Your task to perform on an android device: turn on priority inbox in the gmail app Image 0: 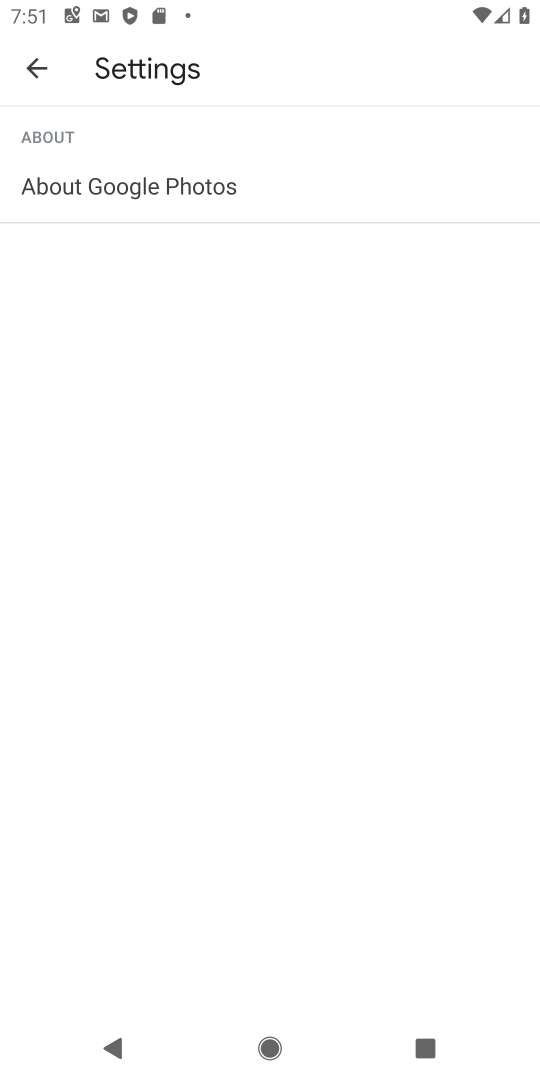
Step 0: press home button
Your task to perform on an android device: turn on priority inbox in the gmail app Image 1: 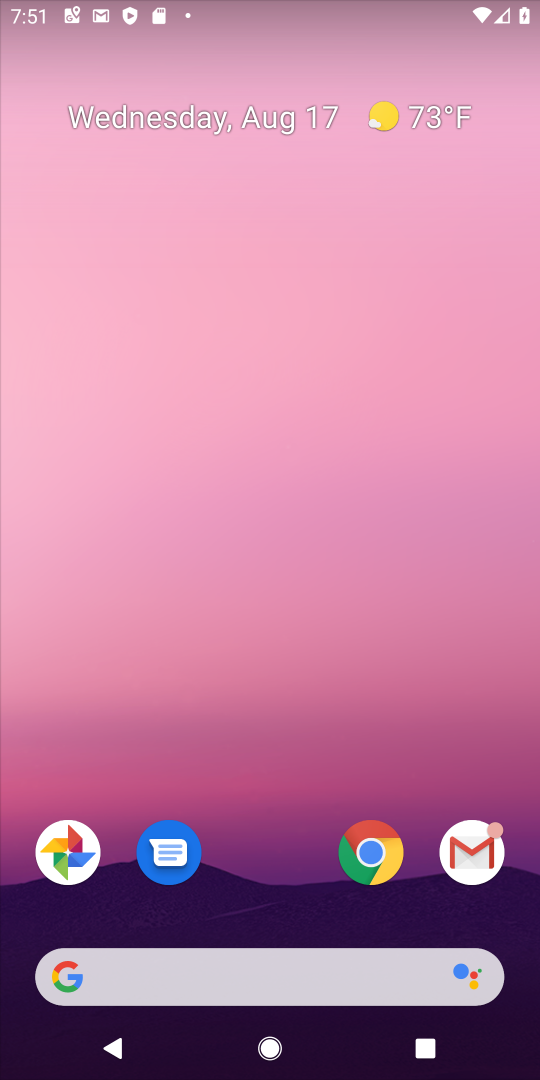
Step 1: click (470, 846)
Your task to perform on an android device: turn on priority inbox in the gmail app Image 2: 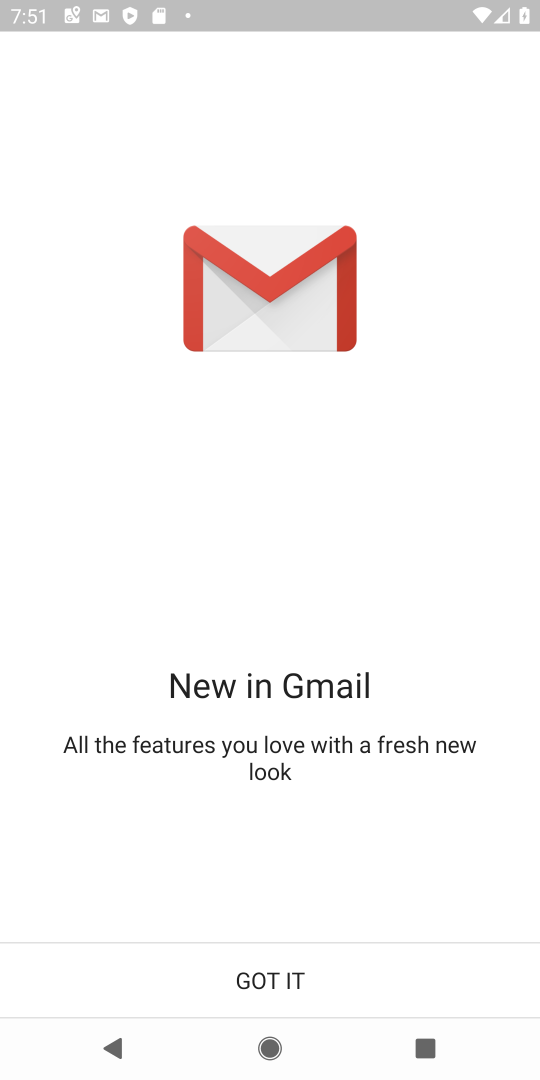
Step 2: click (285, 979)
Your task to perform on an android device: turn on priority inbox in the gmail app Image 3: 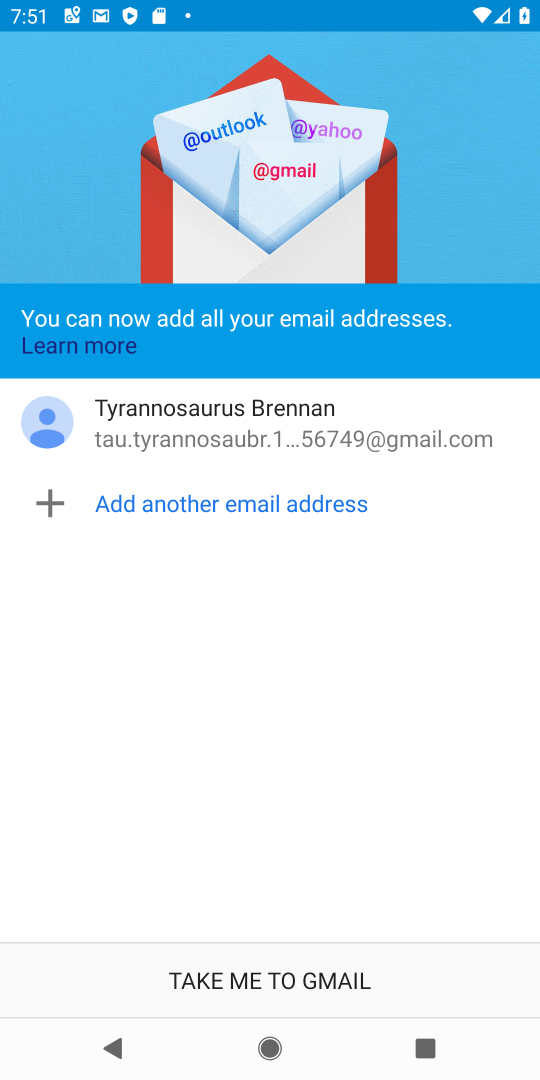
Step 3: click (285, 979)
Your task to perform on an android device: turn on priority inbox in the gmail app Image 4: 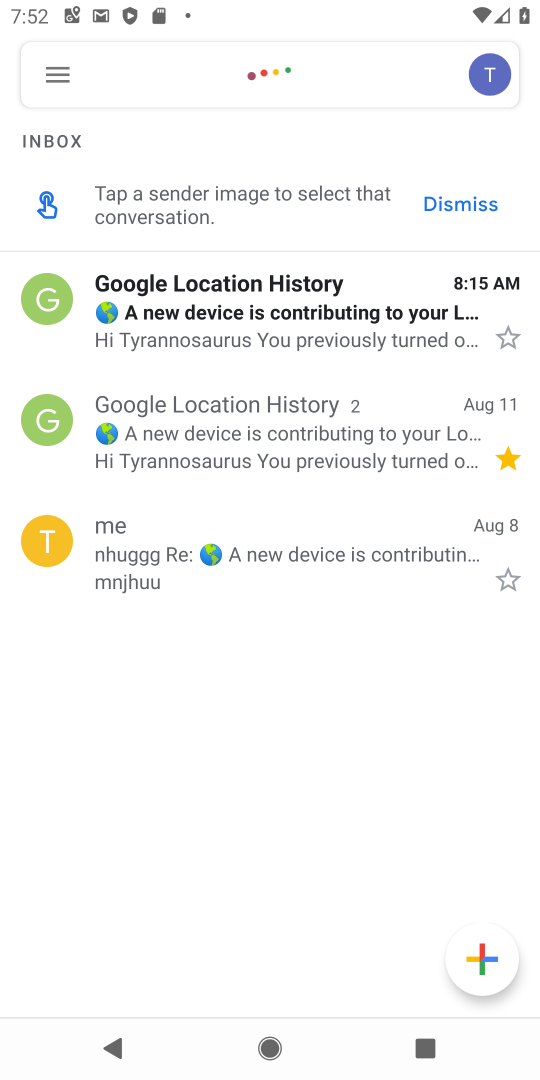
Step 4: click (59, 71)
Your task to perform on an android device: turn on priority inbox in the gmail app Image 5: 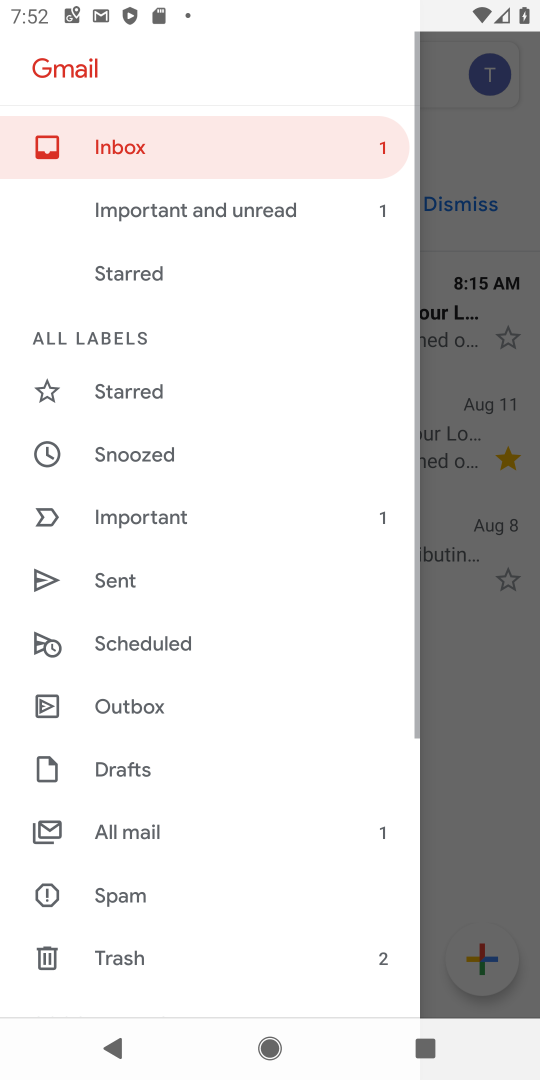
Step 5: drag from (203, 925) to (156, 500)
Your task to perform on an android device: turn on priority inbox in the gmail app Image 6: 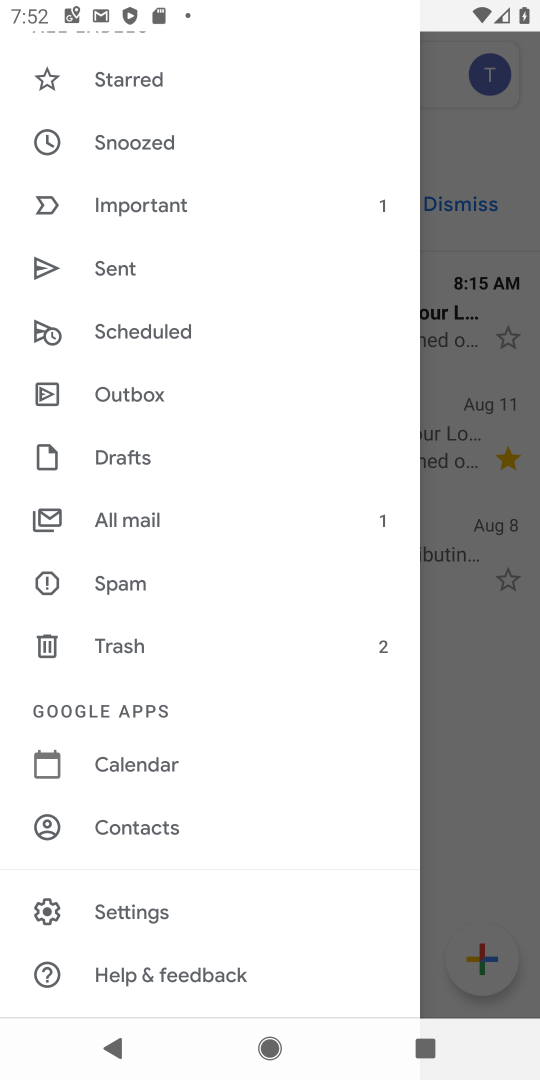
Step 6: click (137, 904)
Your task to perform on an android device: turn on priority inbox in the gmail app Image 7: 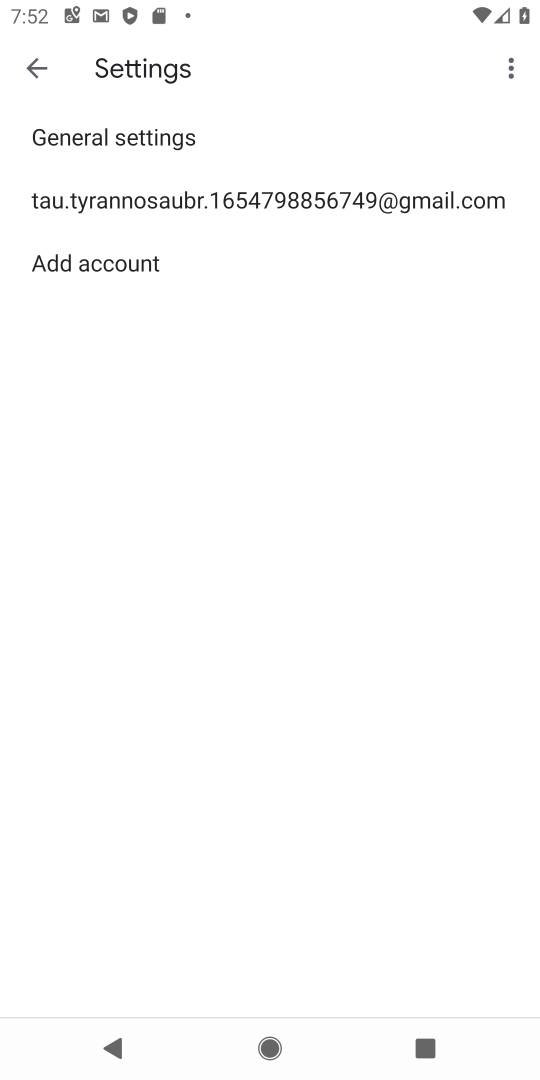
Step 7: click (167, 197)
Your task to perform on an android device: turn on priority inbox in the gmail app Image 8: 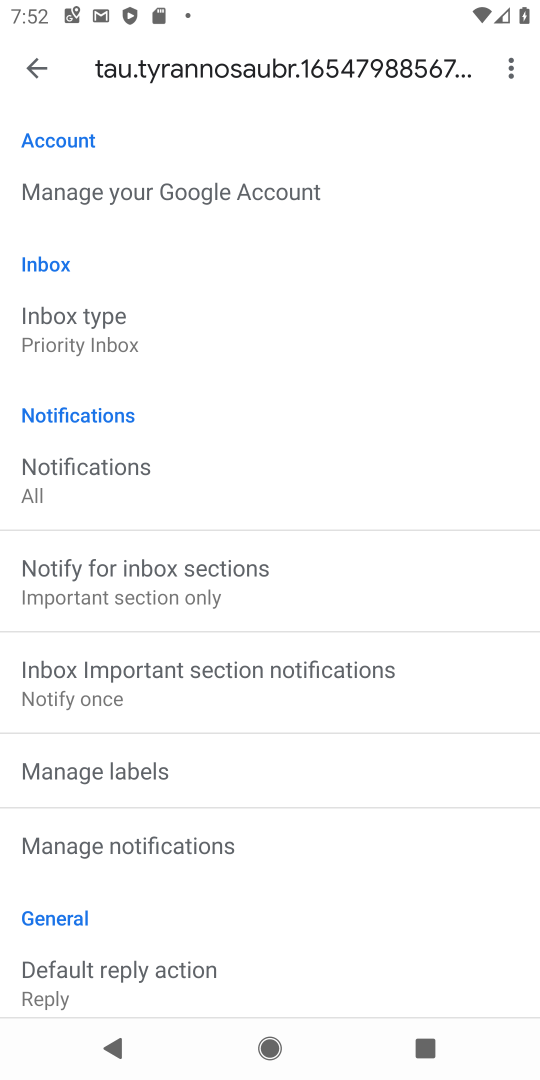
Step 8: click (87, 330)
Your task to perform on an android device: turn on priority inbox in the gmail app Image 9: 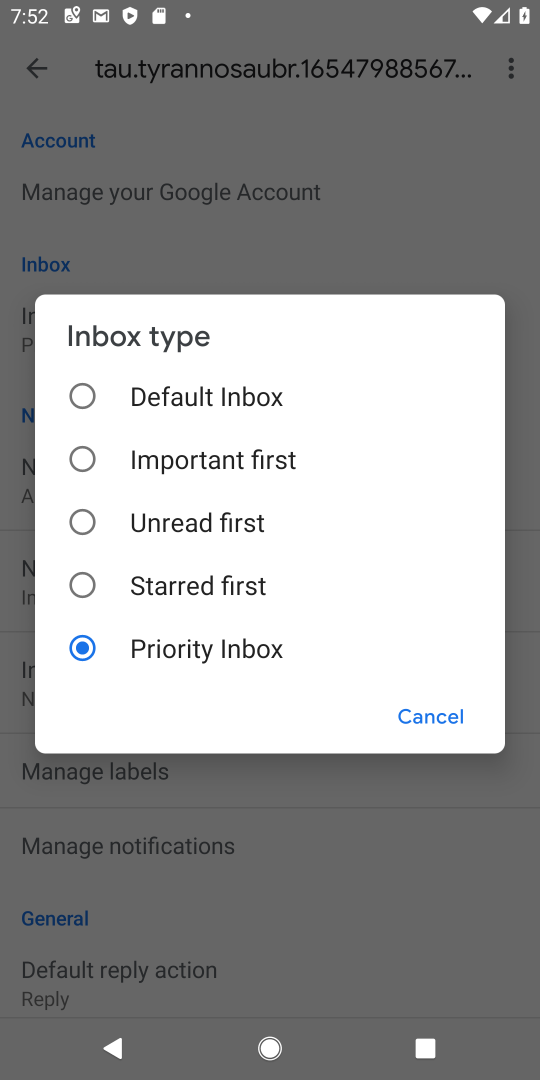
Step 9: task complete